Your task to perform on an android device: toggle priority inbox in the gmail app Image 0: 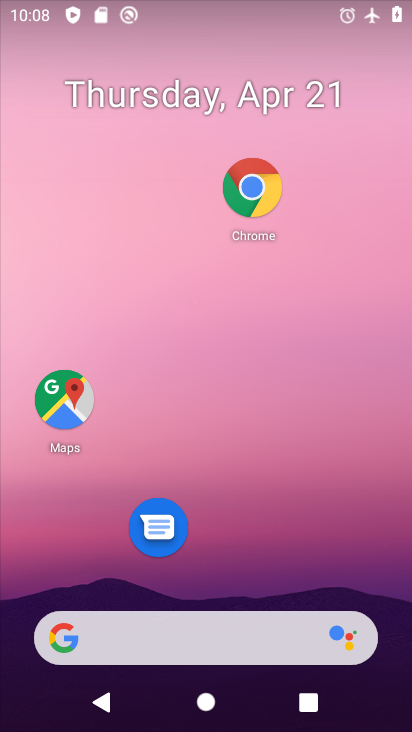
Step 0: drag from (287, 483) to (274, 209)
Your task to perform on an android device: toggle priority inbox in the gmail app Image 1: 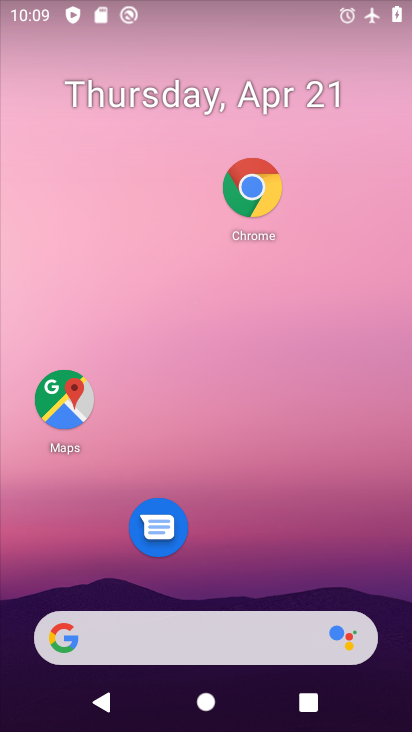
Step 1: drag from (276, 485) to (326, 114)
Your task to perform on an android device: toggle priority inbox in the gmail app Image 2: 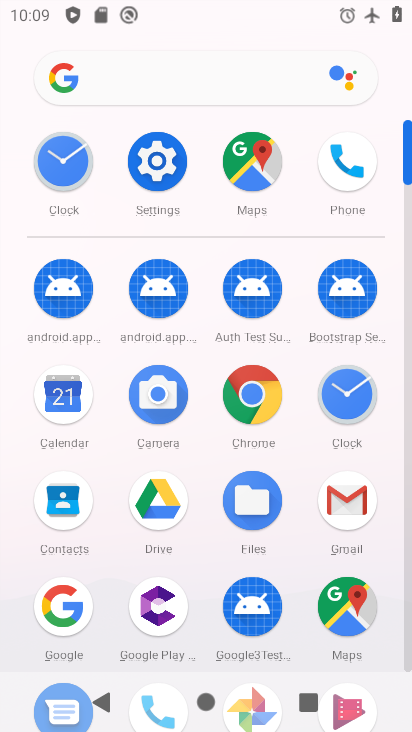
Step 2: click (362, 503)
Your task to perform on an android device: toggle priority inbox in the gmail app Image 3: 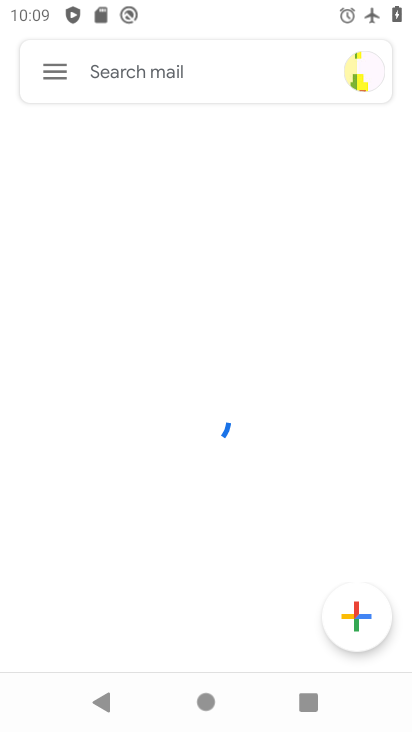
Step 3: click (55, 77)
Your task to perform on an android device: toggle priority inbox in the gmail app Image 4: 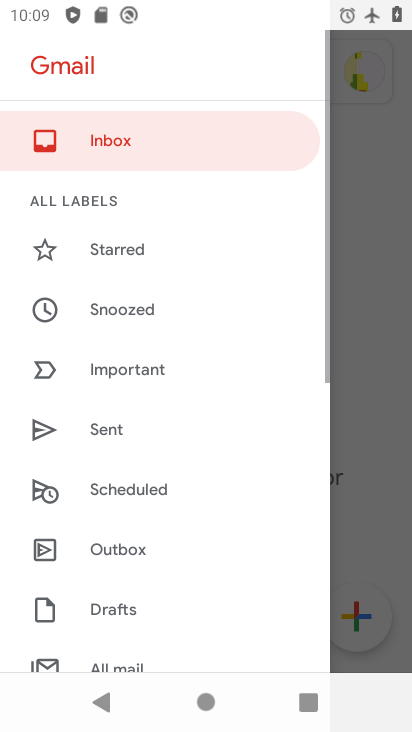
Step 4: drag from (133, 321) to (134, 577)
Your task to perform on an android device: toggle priority inbox in the gmail app Image 5: 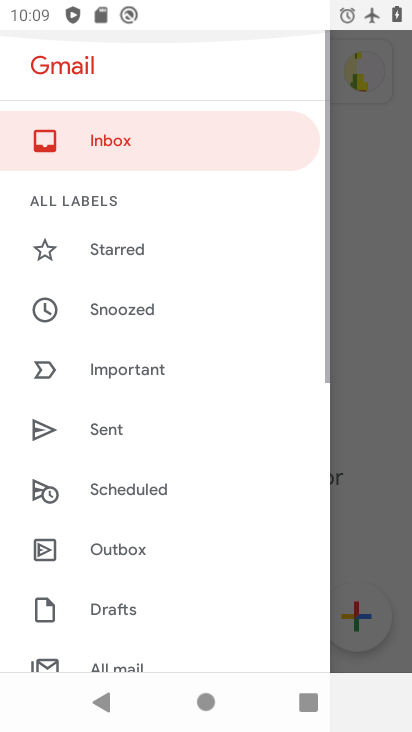
Step 5: drag from (138, 558) to (191, 92)
Your task to perform on an android device: toggle priority inbox in the gmail app Image 6: 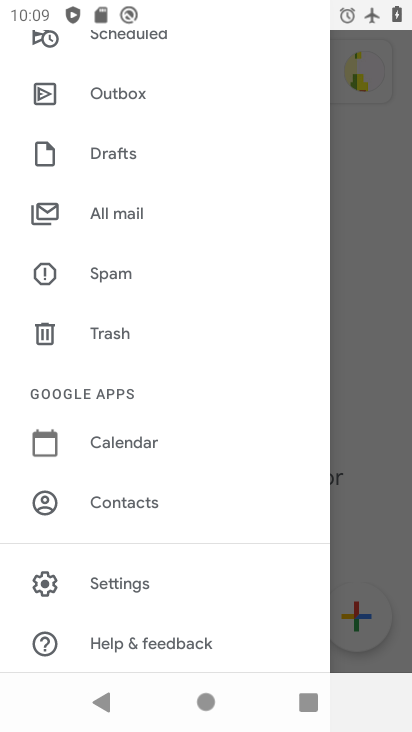
Step 6: click (130, 589)
Your task to perform on an android device: toggle priority inbox in the gmail app Image 7: 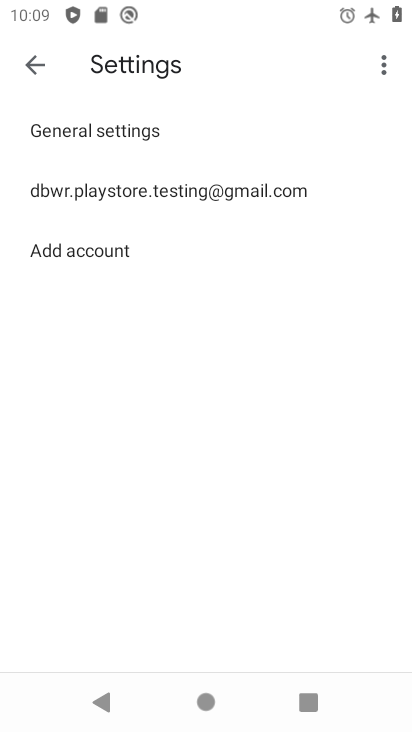
Step 7: click (160, 190)
Your task to perform on an android device: toggle priority inbox in the gmail app Image 8: 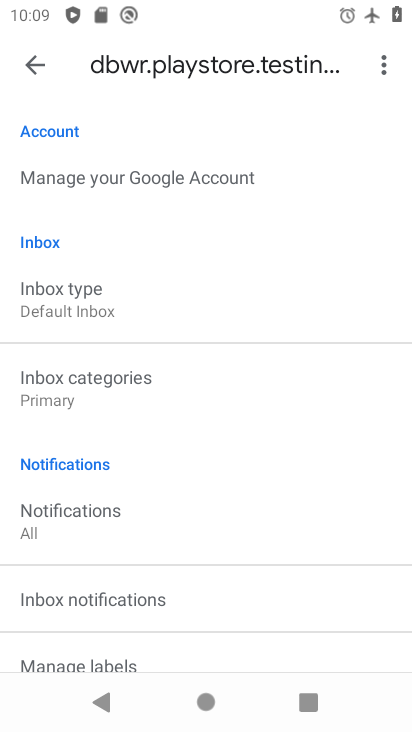
Step 8: drag from (144, 525) to (190, 155)
Your task to perform on an android device: toggle priority inbox in the gmail app Image 9: 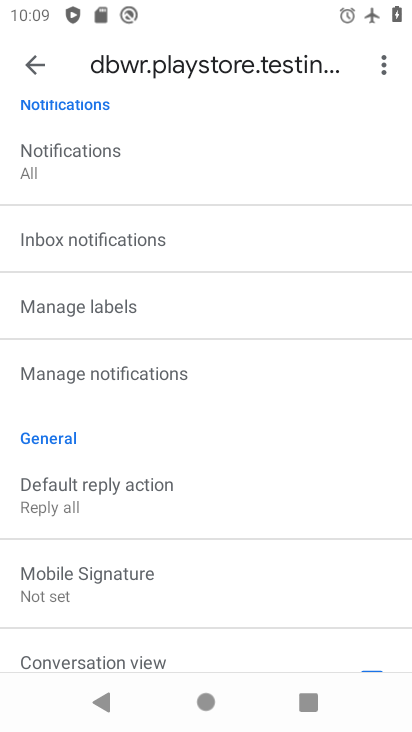
Step 9: drag from (187, 260) to (160, 688)
Your task to perform on an android device: toggle priority inbox in the gmail app Image 10: 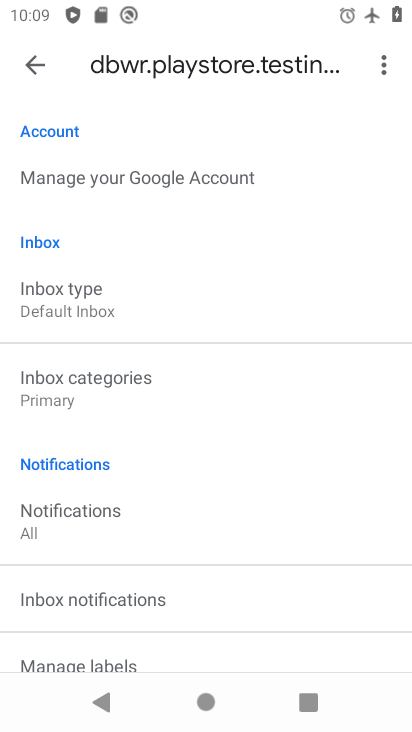
Step 10: click (119, 394)
Your task to perform on an android device: toggle priority inbox in the gmail app Image 11: 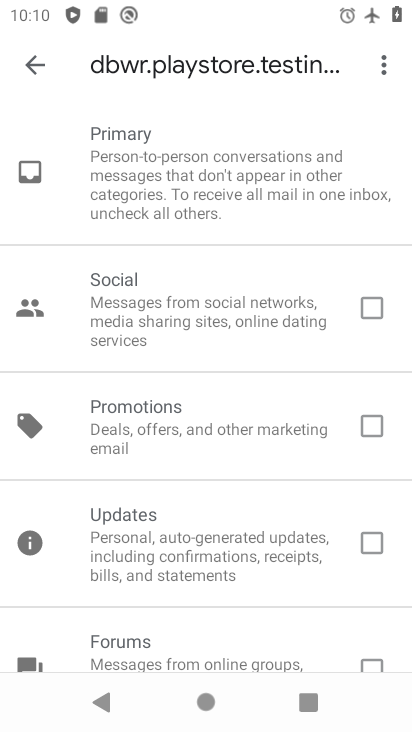
Step 11: click (46, 58)
Your task to perform on an android device: toggle priority inbox in the gmail app Image 12: 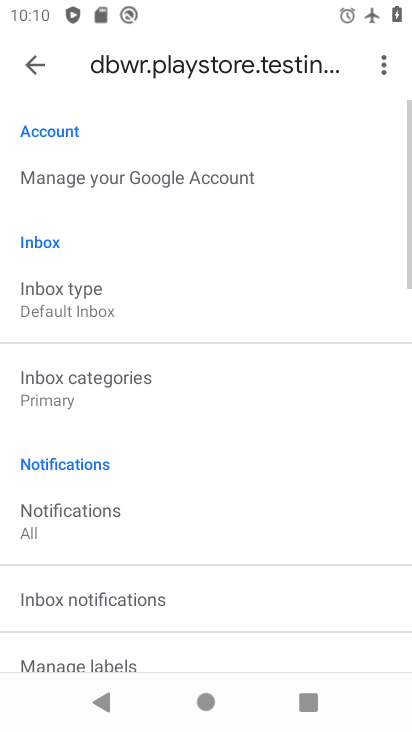
Step 12: click (110, 297)
Your task to perform on an android device: toggle priority inbox in the gmail app Image 13: 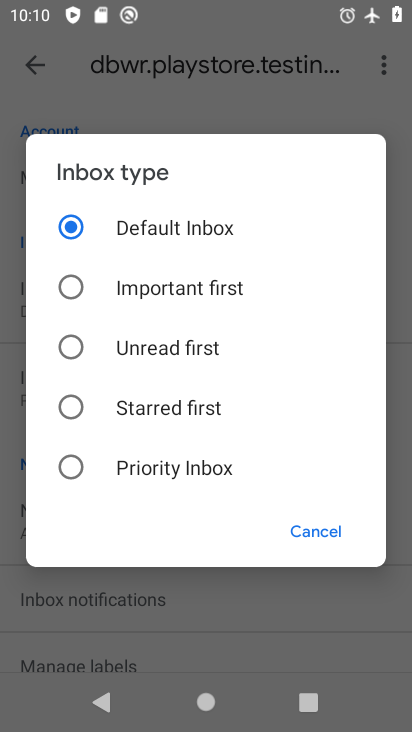
Step 13: click (67, 476)
Your task to perform on an android device: toggle priority inbox in the gmail app Image 14: 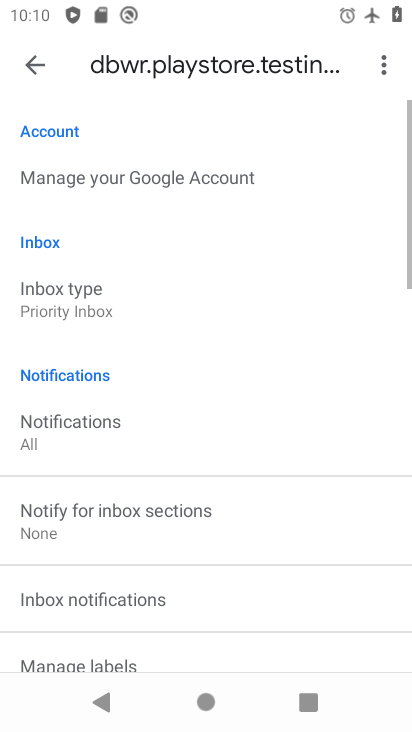
Step 14: task complete